Your task to perform on an android device: Open the stopwatch Image 0: 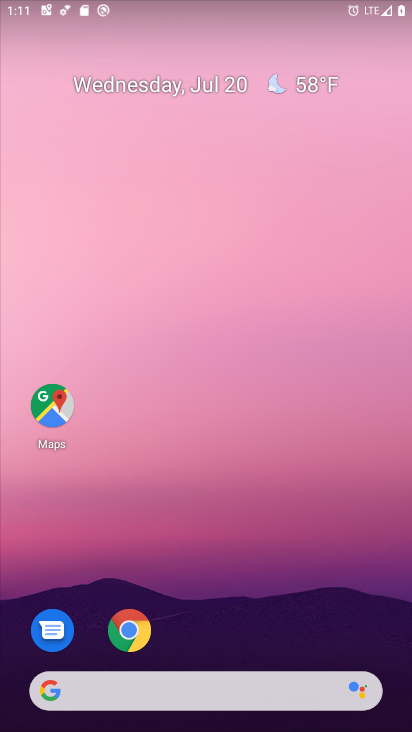
Step 0: drag from (192, 625) to (161, 216)
Your task to perform on an android device: Open the stopwatch Image 1: 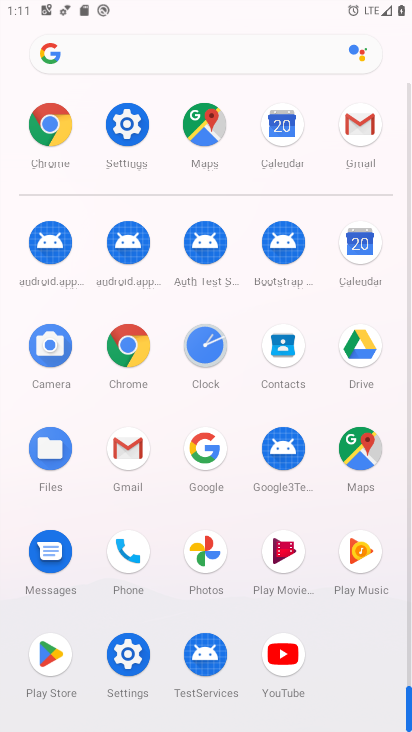
Step 1: click (216, 337)
Your task to perform on an android device: Open the stopwatch Image 2: 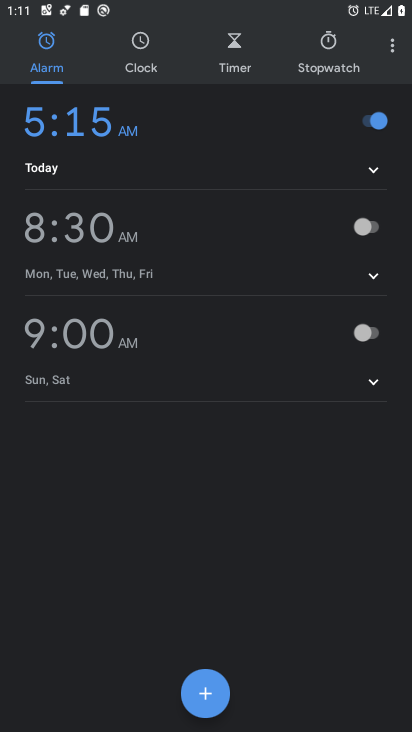
Step 2: click (315, 54)
Your task to perform on an android device: Open the stopwatch Image 3: 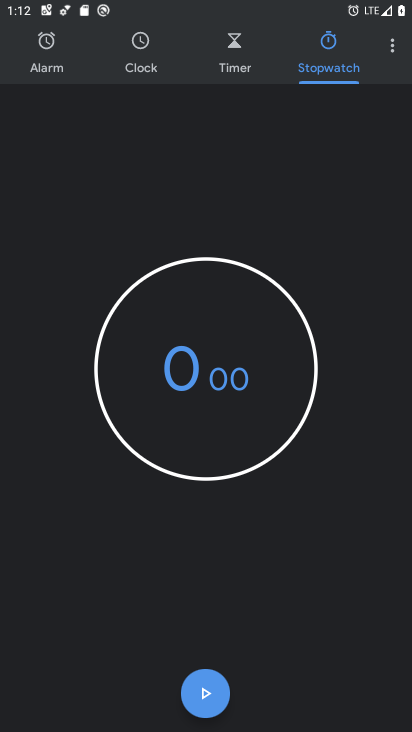
Step 3: task complete